Your task to perform on an android device: Go to Yahoo.com Image 0: 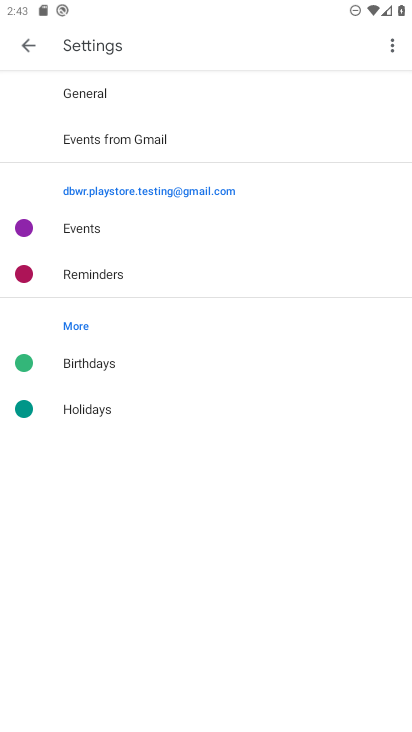
Step 0: drag from (245, 697) to (236, 7)
Your task to perform on an android device: Go to Yahoo.com Image 1: 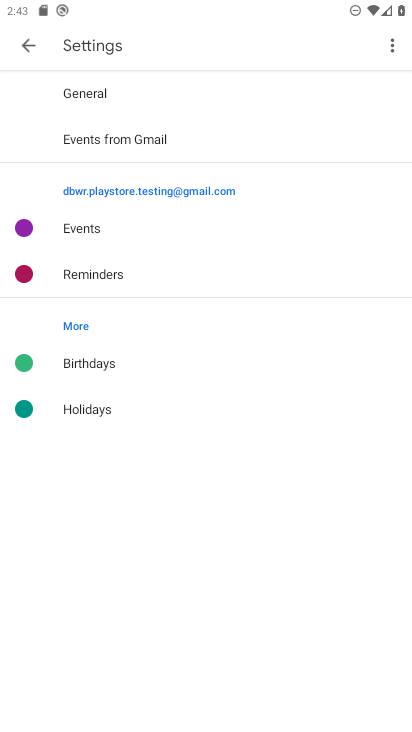
Step 1: press home button
Your task to perform on an android device: Go to Yahoo.com Image 2: 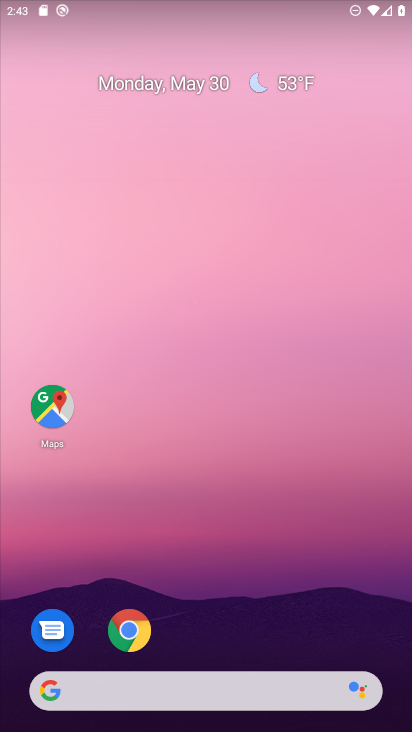
Step 2: click (154, 638)
Your task to perform on an android device: Go to Yahoo.com Image 3: 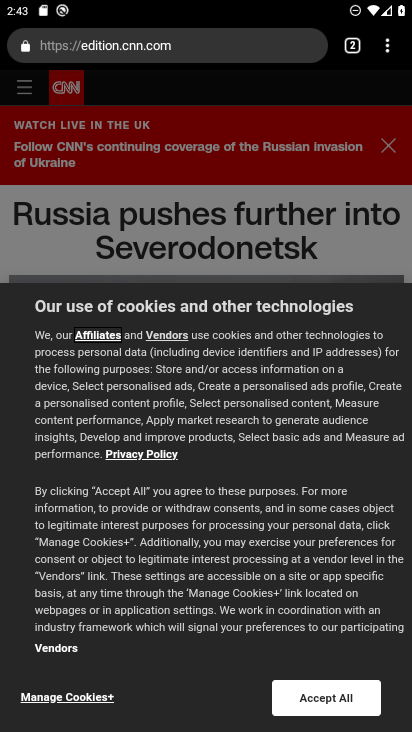
Step 3: click (227, 51)
Your task to perform on an android device: Go to Yahoo.com Image 4: 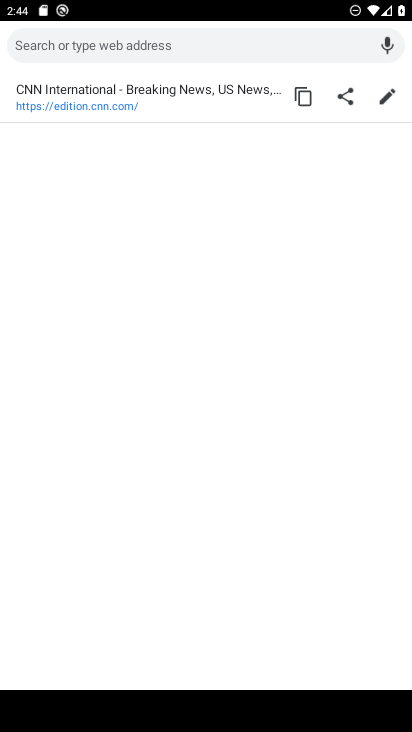
Step 4: type "yahoo.com"
Your task to perform on an android device: Go to Yahoo.com Image 5: 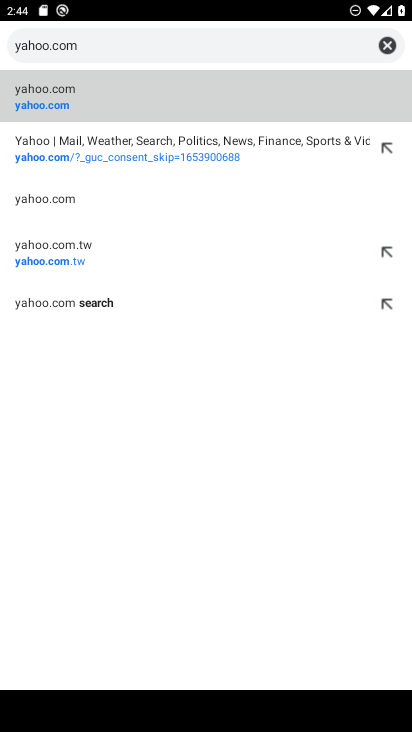
Step 5: click (93, 165)
Your task to perform on an android device: Go to Yahoo.com Image 6: 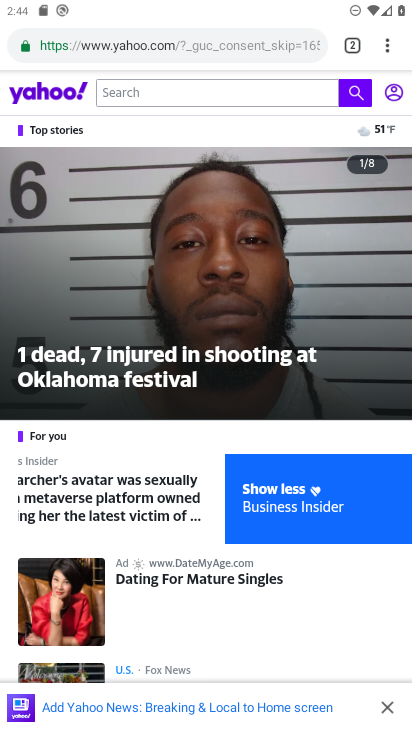
Step 6: task complete